Your task to perform on an android device: toggle javascript in the chrome app Image 0: 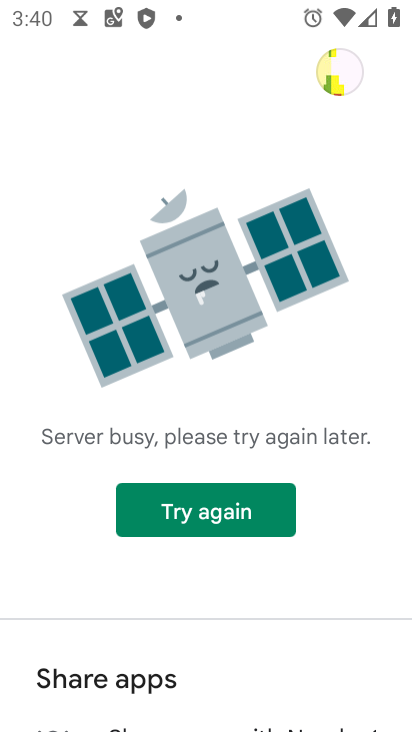
Step 0: click (182, 297)
Your task to perform on an android device: toggle javascript in the chrome app Image 1: 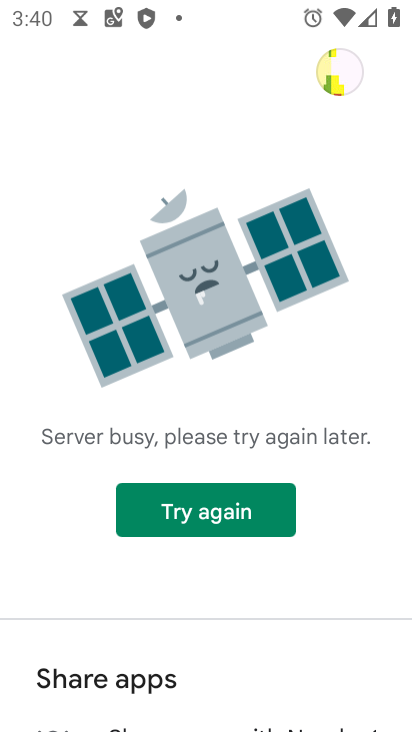
Step 1: task complete